Your task to perform on an android device: Open Chrome and go to settings Image 0: 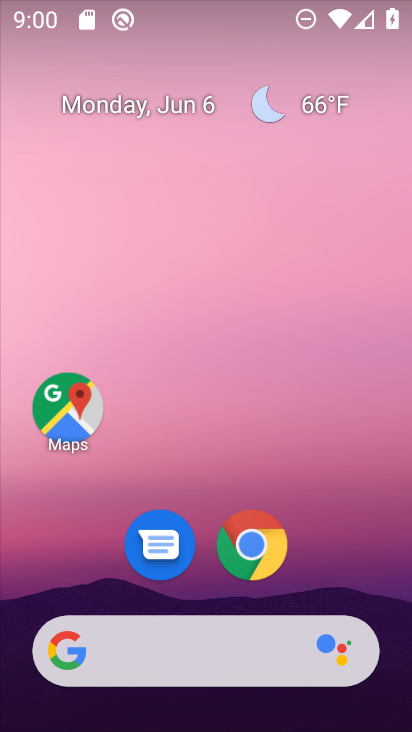
Step 0: click (253, 560)
Your task to perform on an android device: Open Chrome and go to settings Image 1: 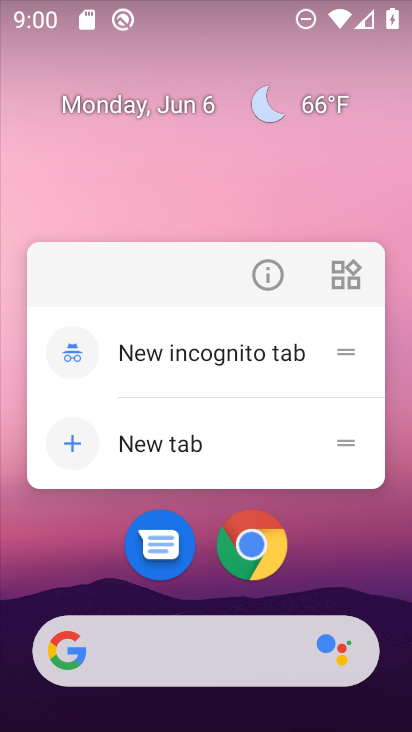
Step 1: click (256, 538)
Your task to perform on an android device: Open Chrome and go to settings Image 2: 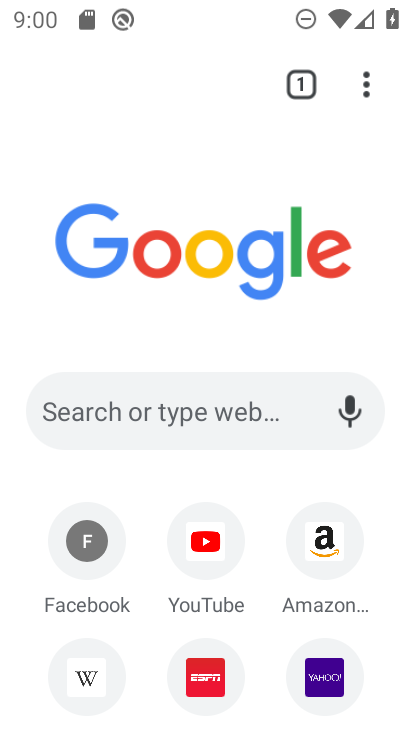
Step 2: click (354, 86)
Your task to perform on an android device: Open Chrome and go to settings Image 3: 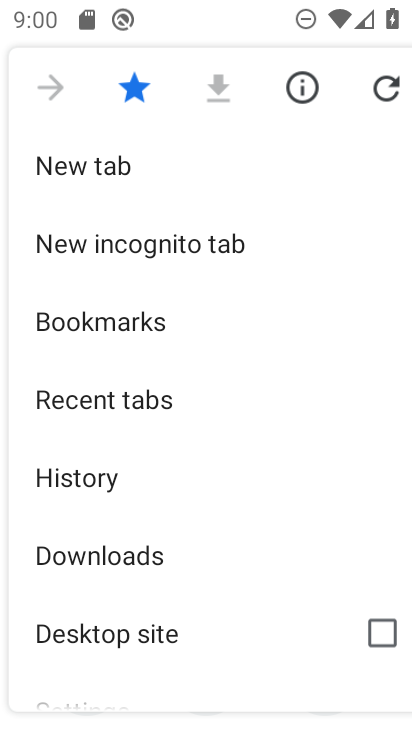
Step 3: drag from (159, 599) to (183, 267)
Your task to perform on an android device: Open Chrome and go to settings Image 4: 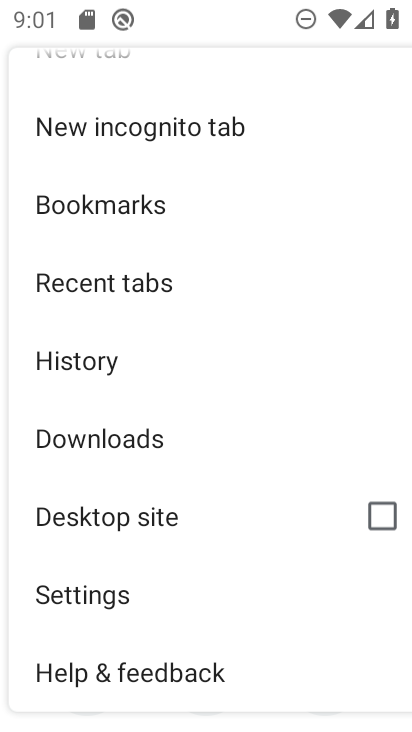
Step 4: click (96, 602)
Your task to perform on an android device: Open Chrome and go to settings Image 5: 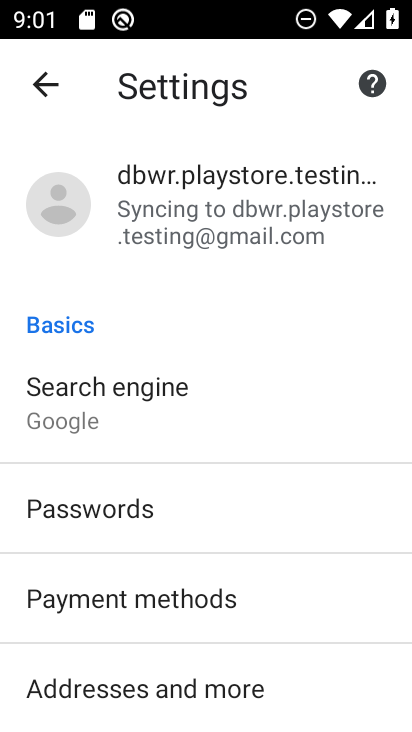
Step 5: task complete